Your task to perform on an android device: Go to location settings Image 0: 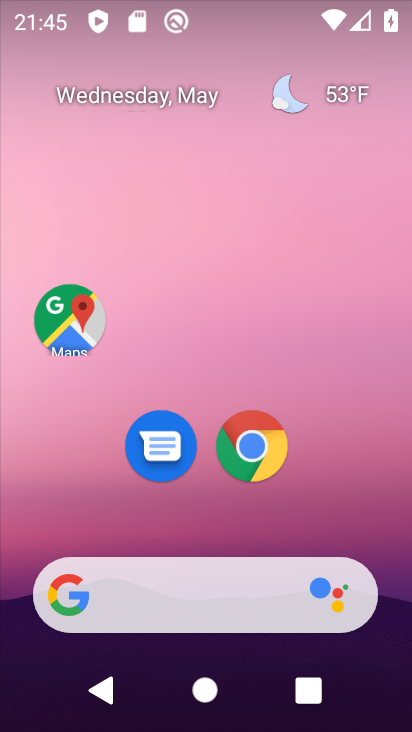
Step 0: drag from (320, 339) to (267, 91)
Your task to perform on an android device: Go to location settings Image 1: 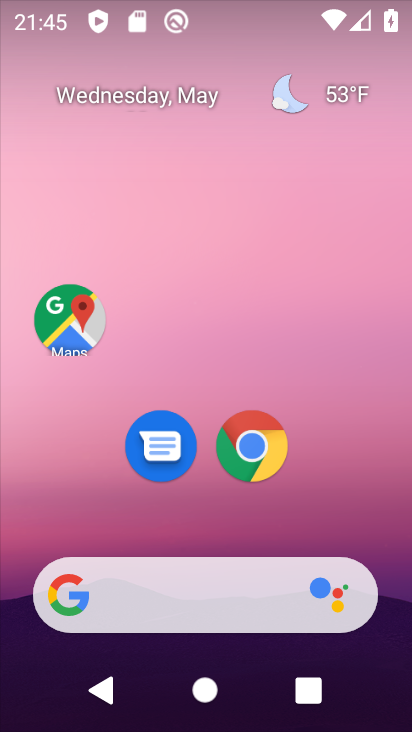
Step 1: drag from (361, 510) to (265, 136)
Your task to perform on an android device: Go to location settings Image 2: 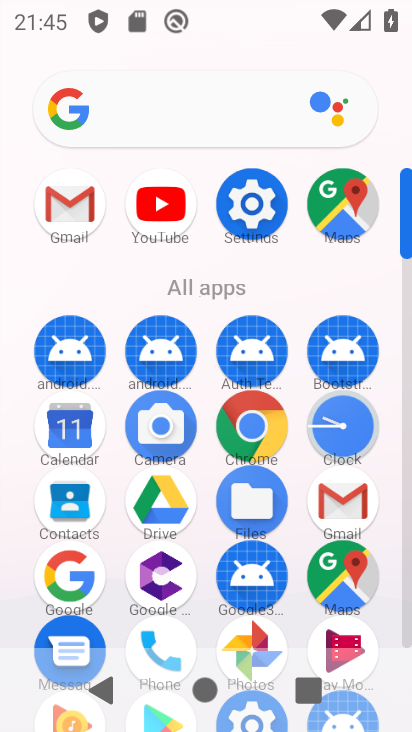
Step 2: click (257, 186)
Your task to perform on an android device: Go to location settings Image 3: 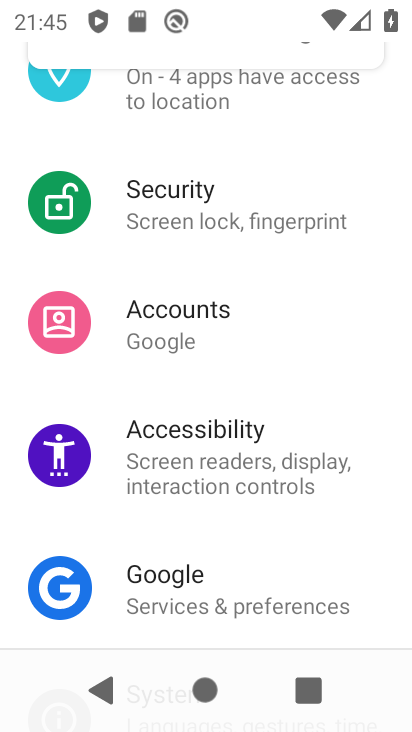
Step 3: click (200, 71)
Your task to perform on an android device: Go to location settings Image 4: 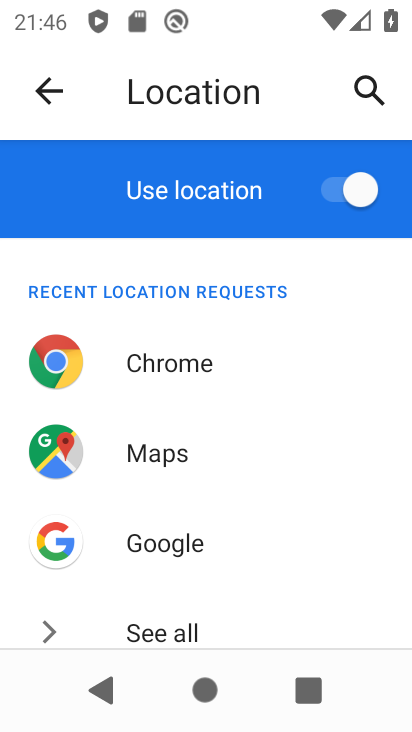
Step 4: task complete